Your task to perform on an android device: turn off sleep mode Image 0: 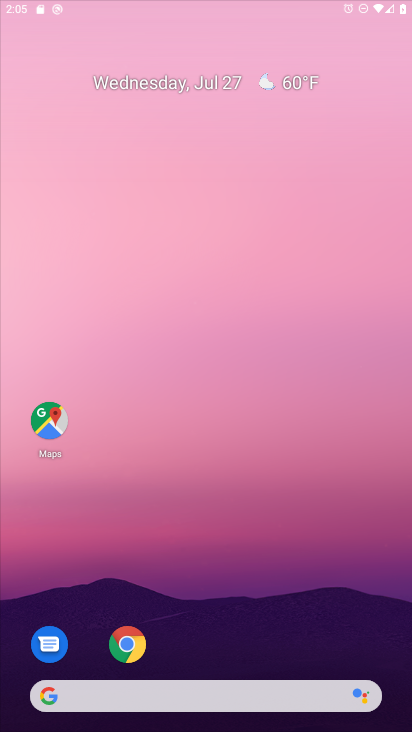
Step 0: drag from (195, 645) to (208, 167)
Your task to perform on an android device: turn off sleep mode Image 1: 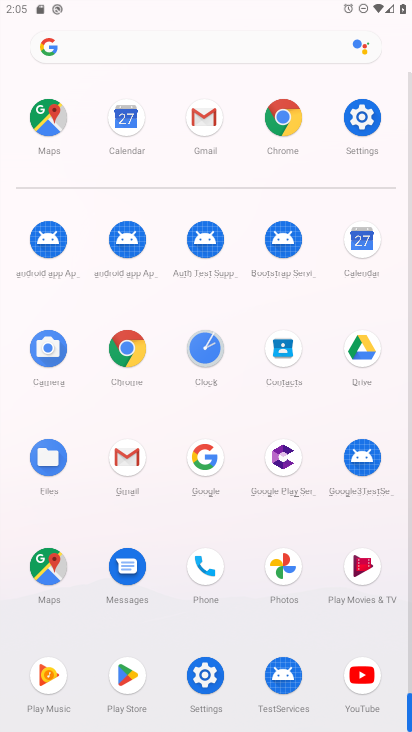
Step 1: click (208, 675)
Your task to perform on an android device: turn off sleep mode Image 2: 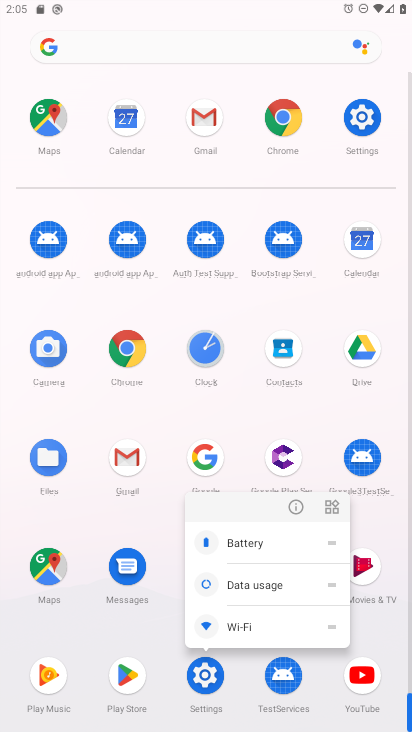
Step 2: click (290, 498)
Your task to perform on an android device: turn off sleep mode Image 3: 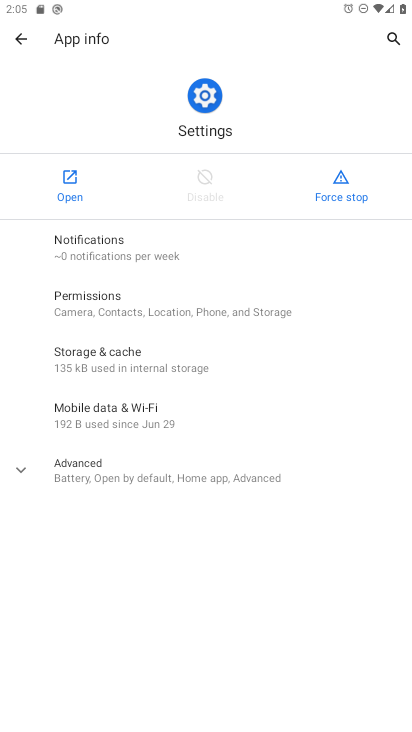
Step 3: click (70, 196)
Your task to perform on an android device: turn off sleep mode Image 4: 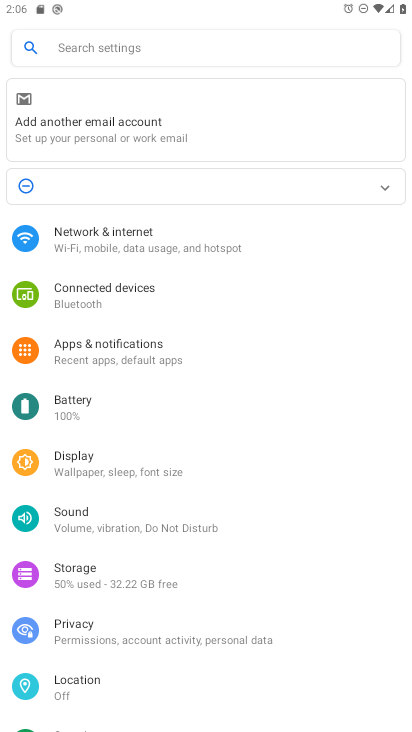
Step 4: drag from (215, 600) to (277, 123)
Your task to perform on an android device: turn off sleep mode Image 5: 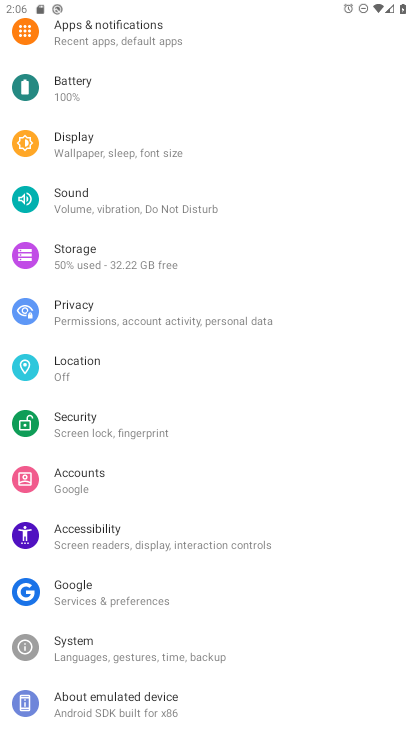
Step 5: click (105, 139)
Your task to perform on an android device: turn off sleep mode Image 6: 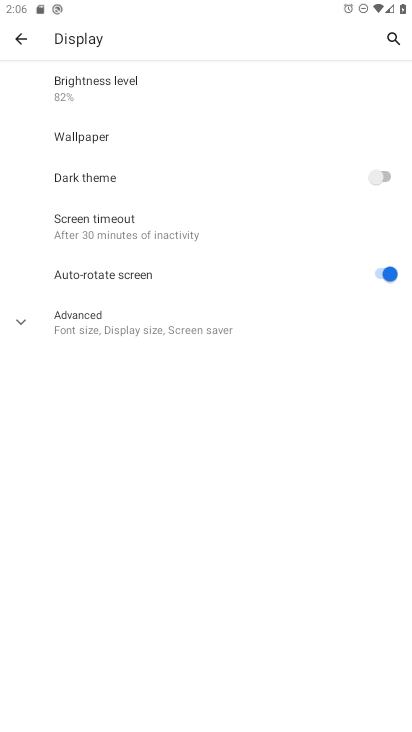
Step 6: click (142, 227)
Your task to perform on an android device: turn off sleep mode Image 7: 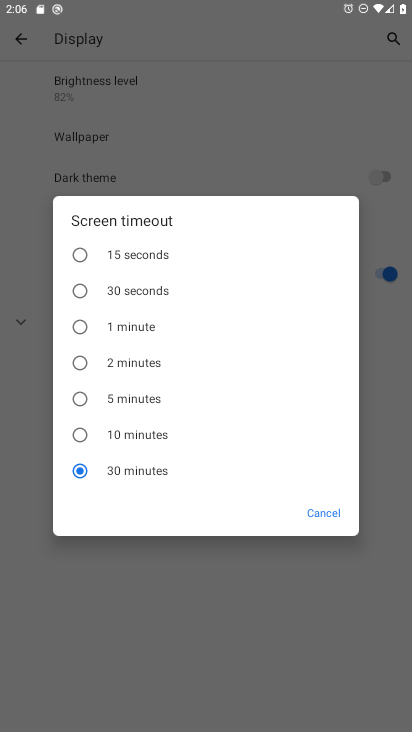
Step 7: task complete